Your task to perform on an android device: open app "Adobe Acrobat Reader: Edit PDF" Image 0: 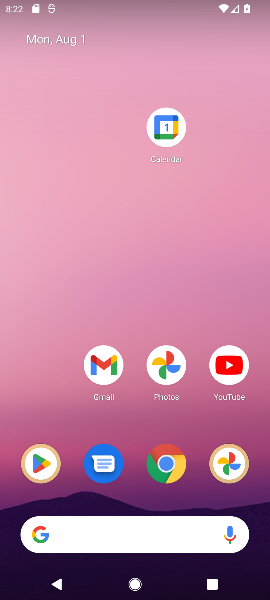
Step 0: drag from (105, 485) to (133, 173)
Your task to perform on an android device: open app "Adobe Acrobat Reader: Edit PDF" Image 1: 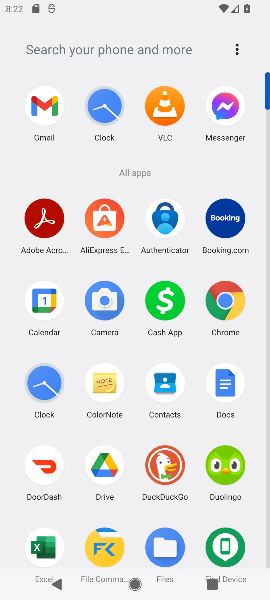
Step 1: click (52, 218)
Your task to perform on an android device: open app "Adobe Acrobat Reader: Edit PDF" Image 2: 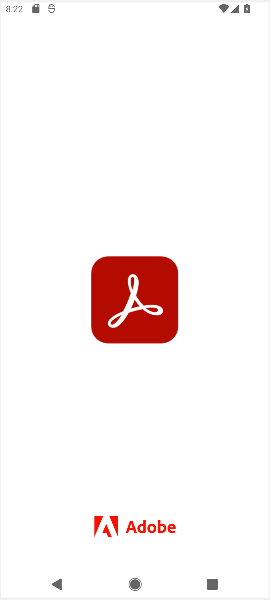
Step 2: task complete